Your task to perform on an android device: check out phone information Image 0: 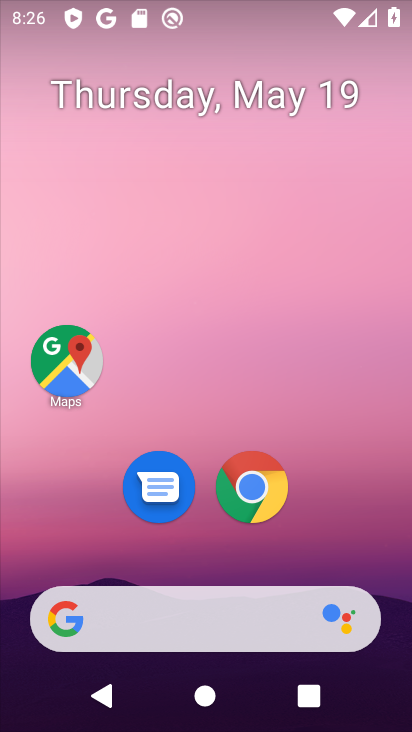
Step 0: drag from (195, 591) to (201, 1)
Your task to perform on an android device: check out phone information Image 1: 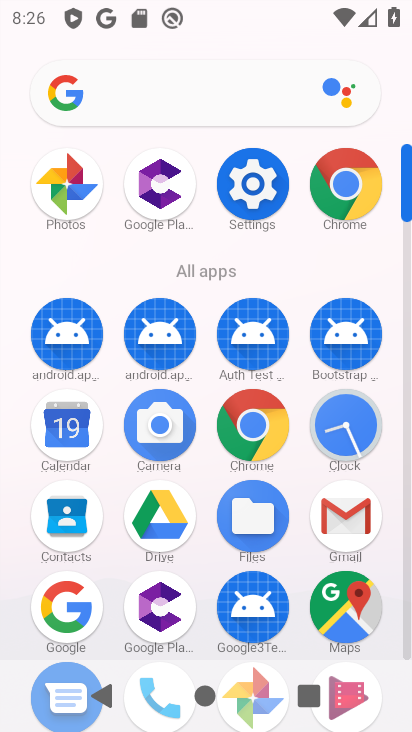
Step 1: click (251, 172)
Your task to perform on an android device: check out phone information Image 2: 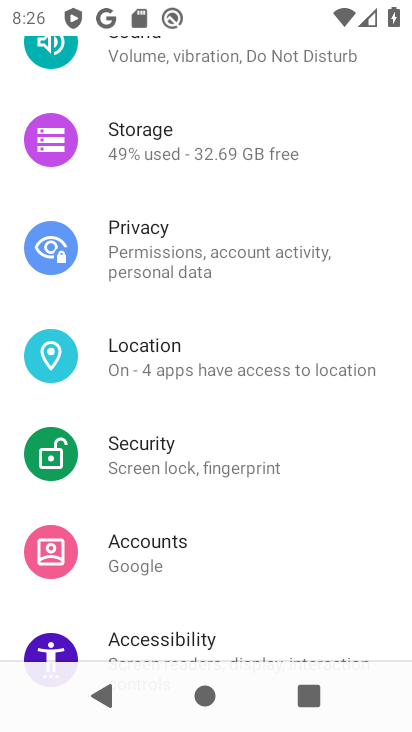
Step 2: drag from (165, 542) to (133, 29)
Your task to perform on an android device: check out phone information Image 3: 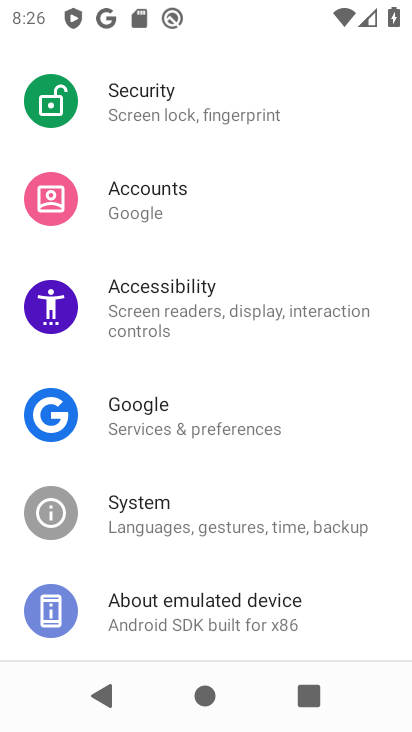
Step 3: click (146, 580)
Your task to perform on an android device: check out phone information Image 4: 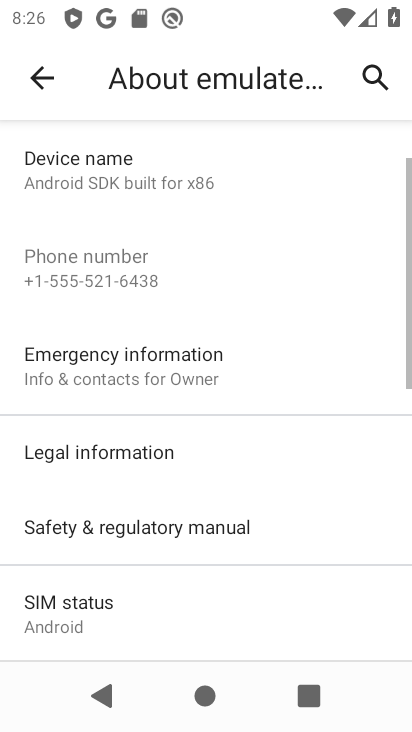
Step 4: task complete